Your task to perform on an android device: Open wifi settings Image 0: 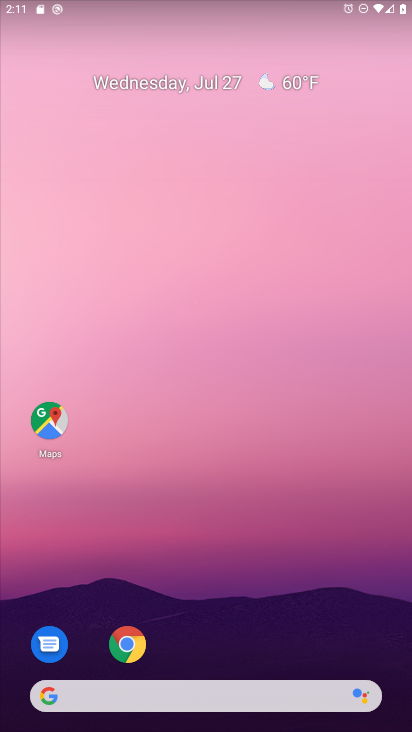
Step 0: drag from (163, 552) to (197, 100)
Your task to perform on an android device: Open wifi settings Image 1: 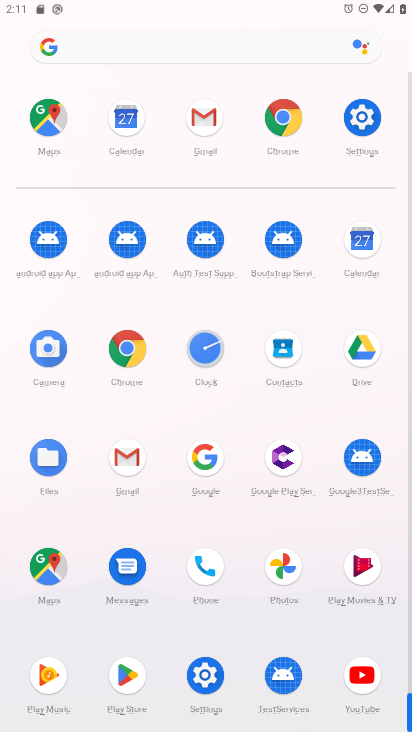
Step 1: click (386, 118)
Your task to perform on an android device: Open wifi settings Image 2: 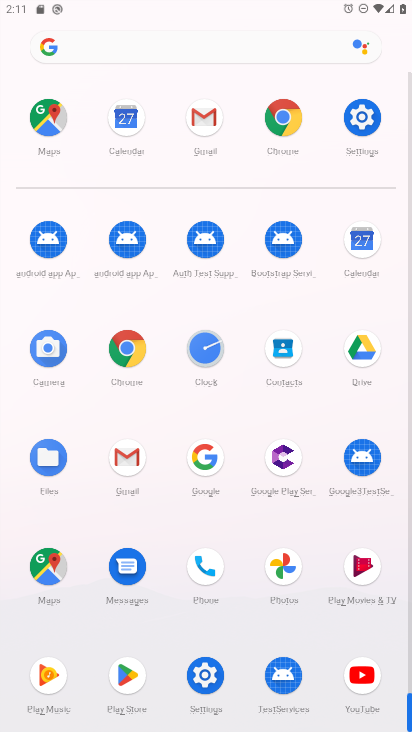
Step 2: click (384, 112)
Your task to perform on an android device: Open wifi settings Image 3: 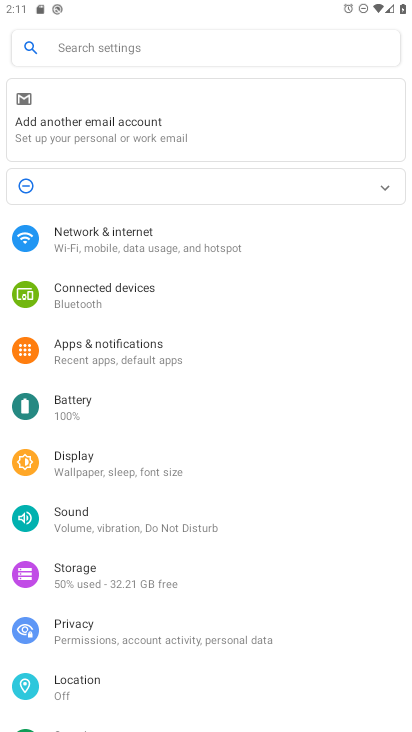
Step 3: click (135, 229)
Your task to perform on an android device: Open wifi settings Image 4: 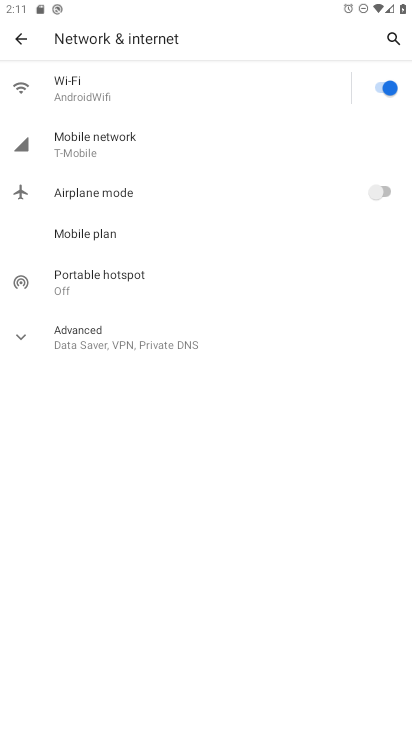
Step 4: click (232, 84)
Your task to perform on an android device: Open wifi settings Image 5: 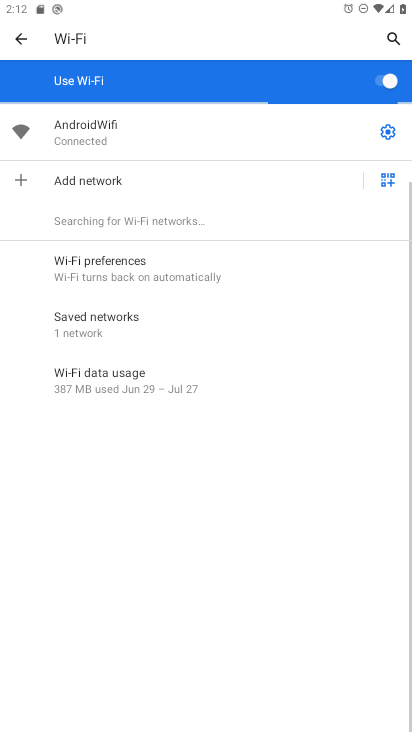
Step 5: click (382, 131)
Your task to perform on an android device: Open wifi settings Image 6: 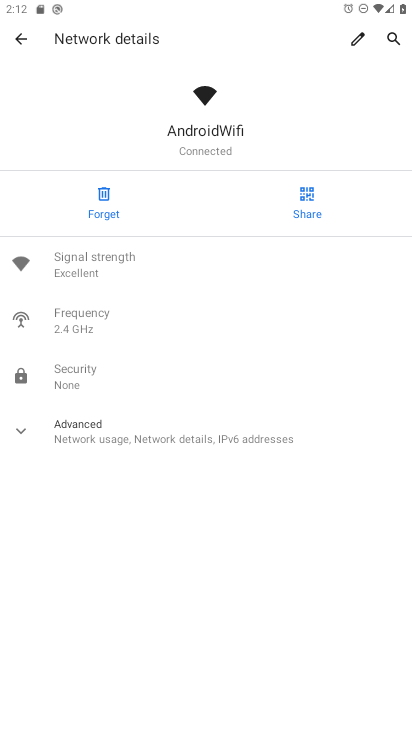
Step 6: task complete